Your task to perform on an android device: clear all cookies in the chrome app Image 0: 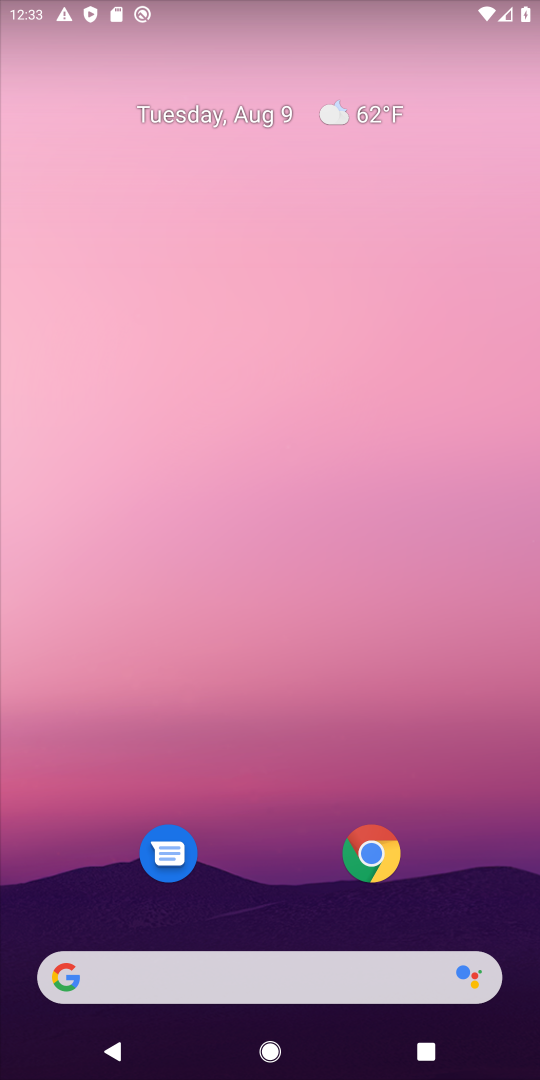
Step 0: click (353, 856)
Your task to perform on an android device: clear all cookies in the chrome app Image 1: 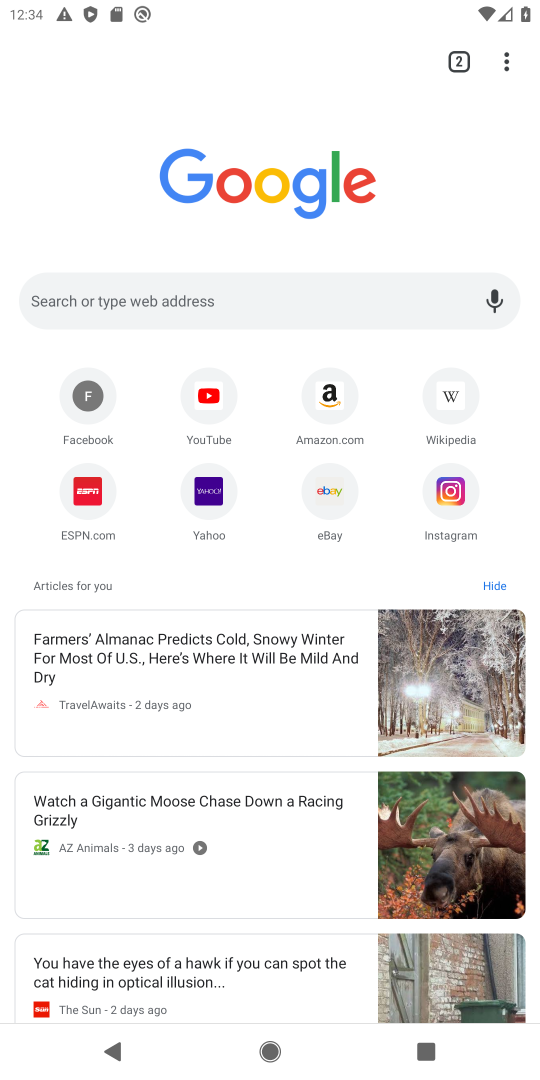
Step 1: drag from (509, 63) to (262, 576)
Your task to perform on an android device: clear all cookies in the chrome app Image 2: 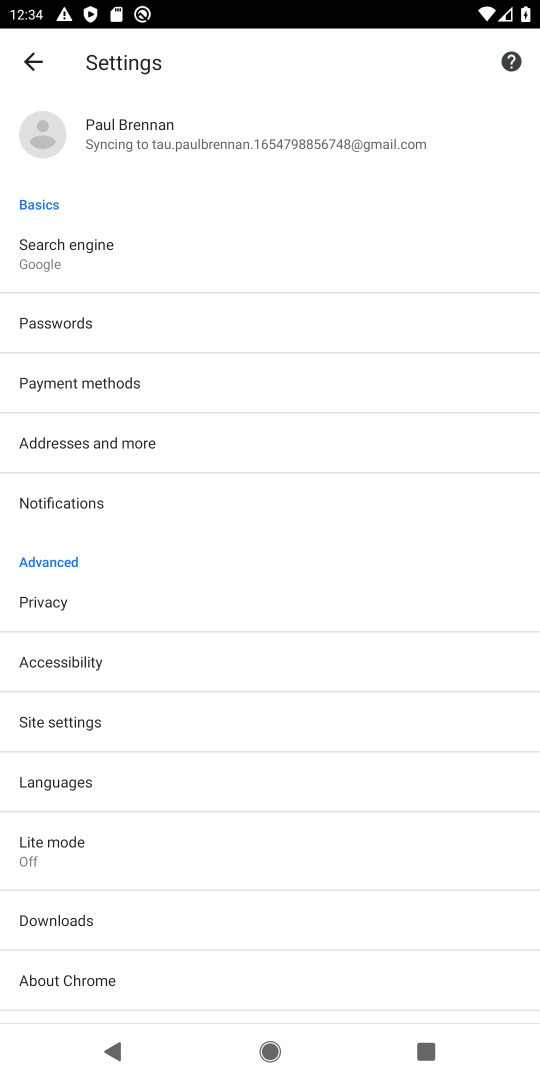
Step 2: click (62, 608)
Your task to perform on an android device: clear all cookies in the chrome app Image 3: 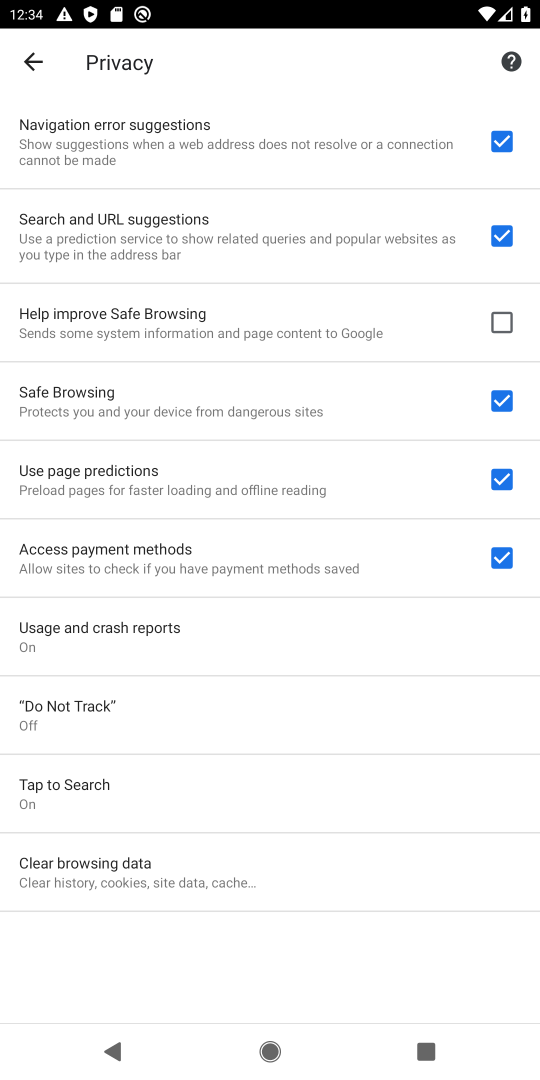
Step 3: drag from (258, 631) to (256, 153)
Your task to perform on an android device: clear all cookies in the chrome app Image 4: 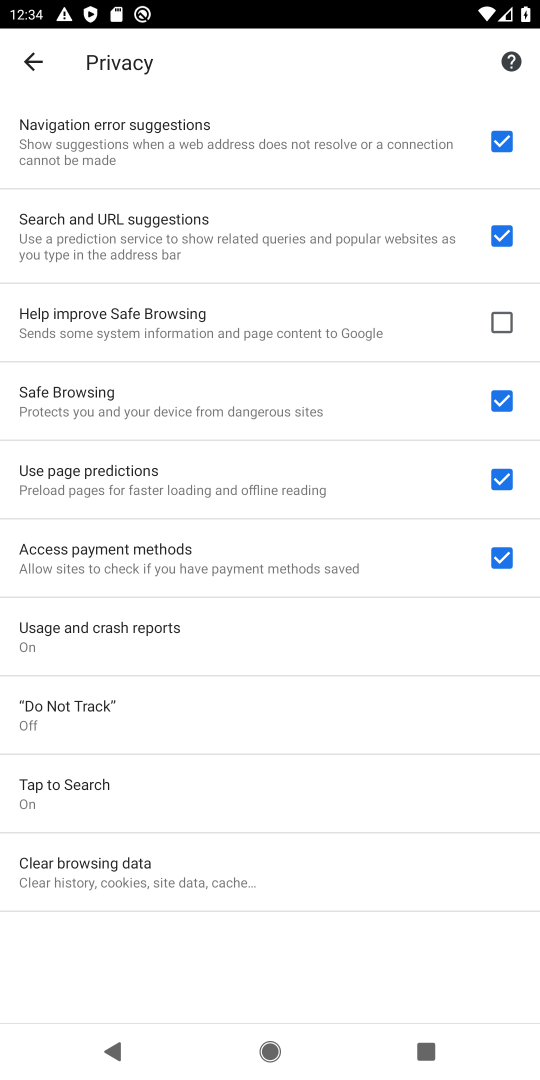
Step 4: click (144, 872)
Your task to perform on an android device: clear all cookies in the chrome app Image 5: 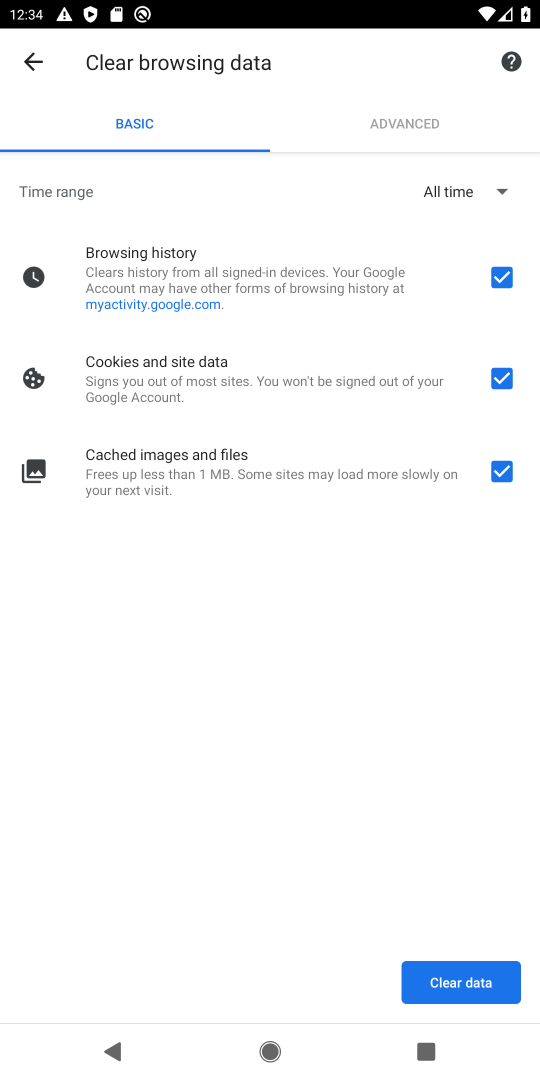
Step 5: click (491, 467)
Your task to perform on an android device: clear all cookies in the chrome app Image 6: 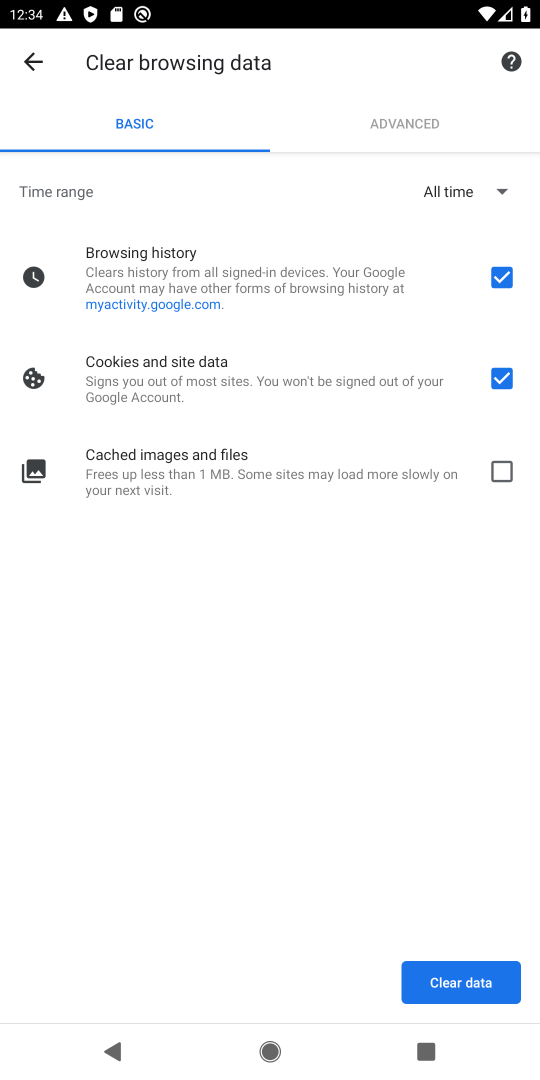
Step 6: click (493, 280)
Your task to perform on an android device: clear all cookies in the chrome app Image 7: 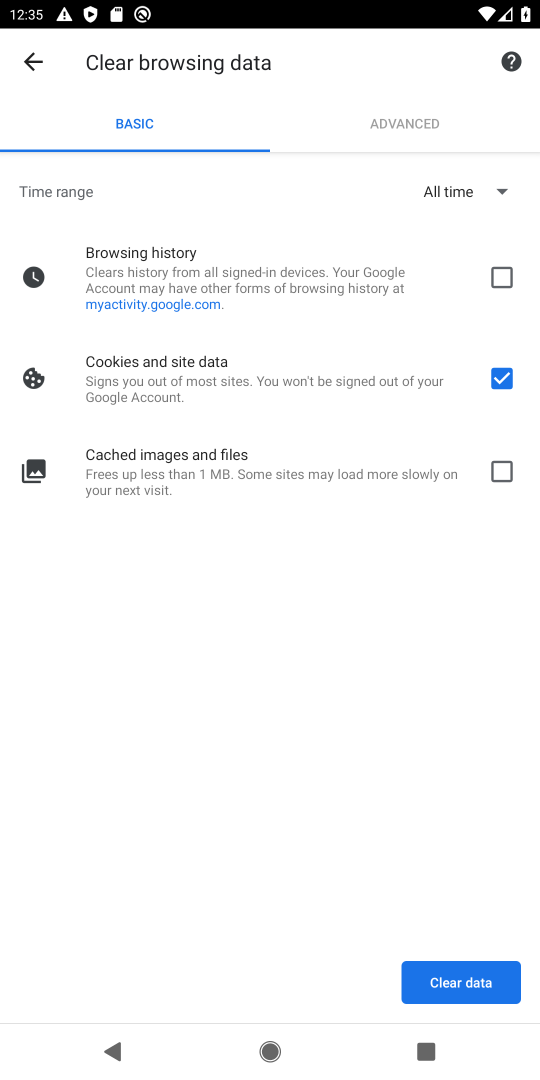
Step 7: click (458, 982)
Your task to perform on an android device: clear all cookies in the chrome app Image 8: 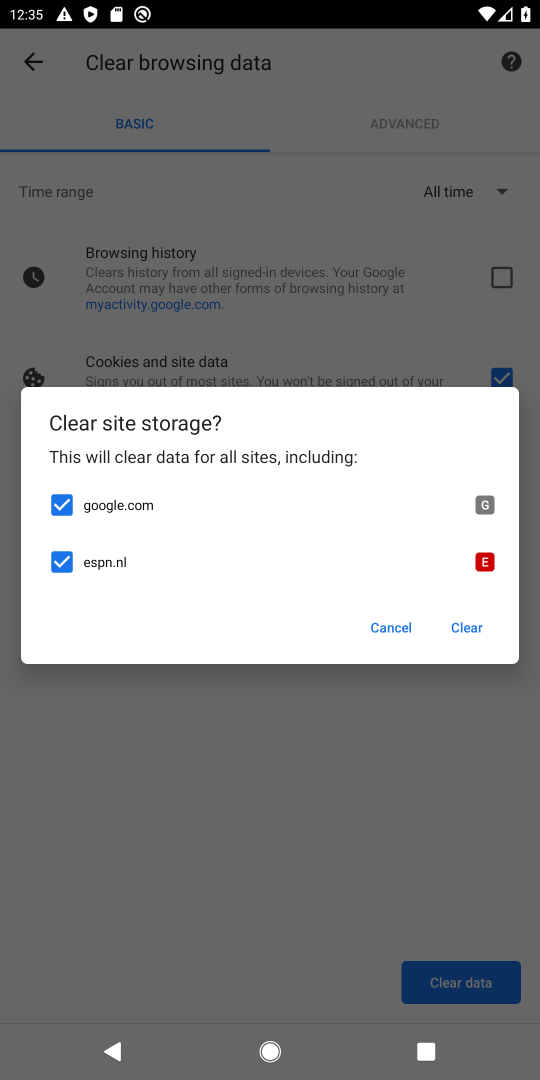
Step 8: click (466, 626)
Your task to perform on an android device: clear all cookies in the chrome app Image 9: 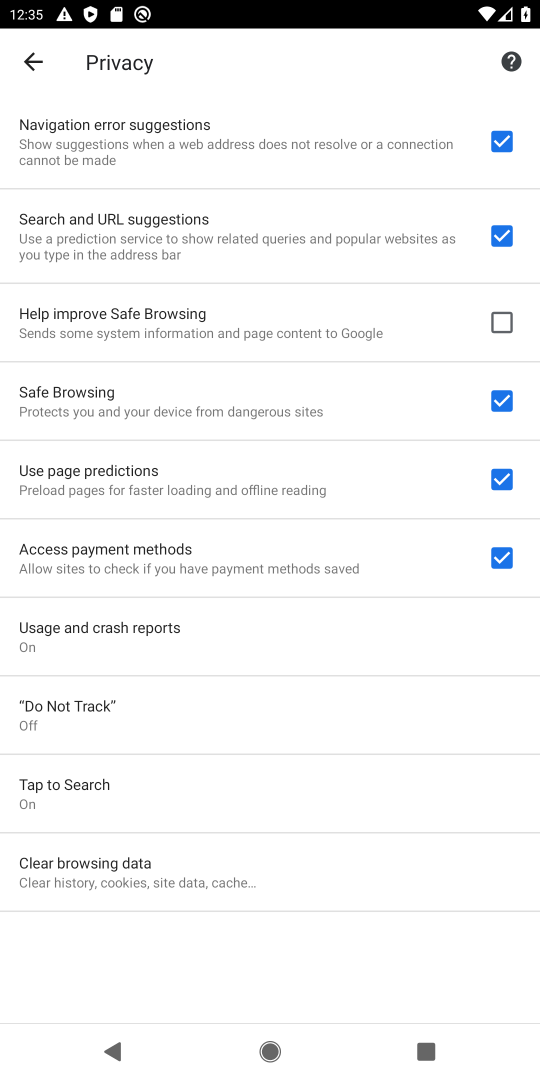
Step 9: task complete